Your task to perform on an android device: Toggle the flashlight Image 0: 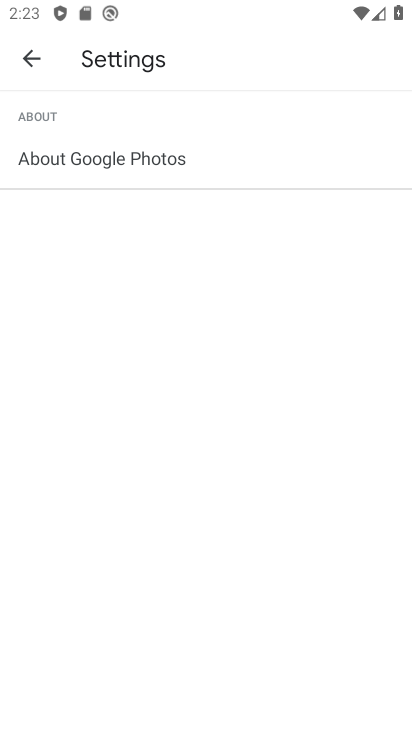
Step 0: press back button
Your task to perform on an android device: Toggle the flashlight Image 1: 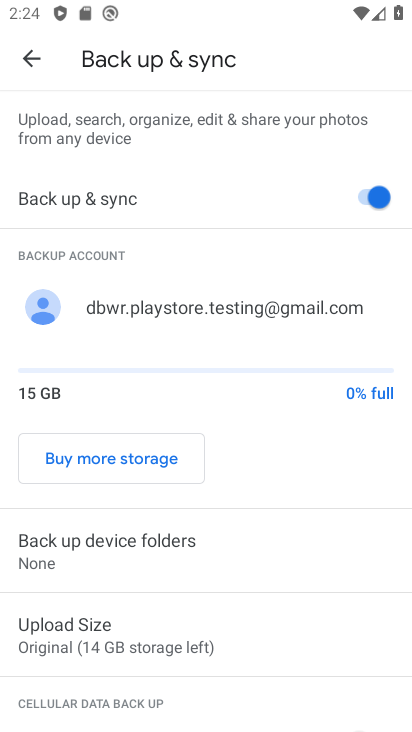
Step 1: task complete